Your task to perform on an android device: add a contact in the contacts app Image 0: 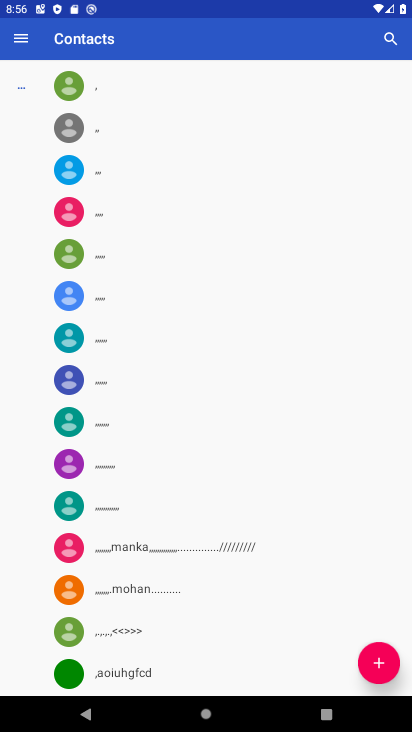
Step 0: drag from (158, 140) to (161, 421)
Your task to perform on an android device: add a contact in the contacts app Image 1: 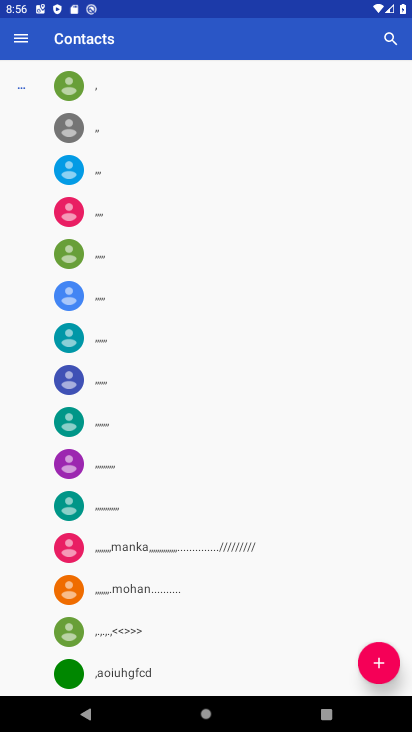
Step 1: click (22, 34)
Your task to perform on an android device: add a contact in the contacts app Image 2: 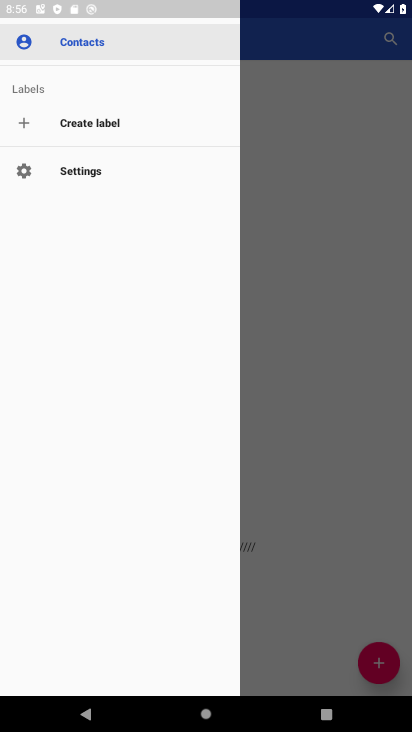
Step 2: click (338, 302)
Your task to perform on an android device: add a contact in the contacts app Image 3: 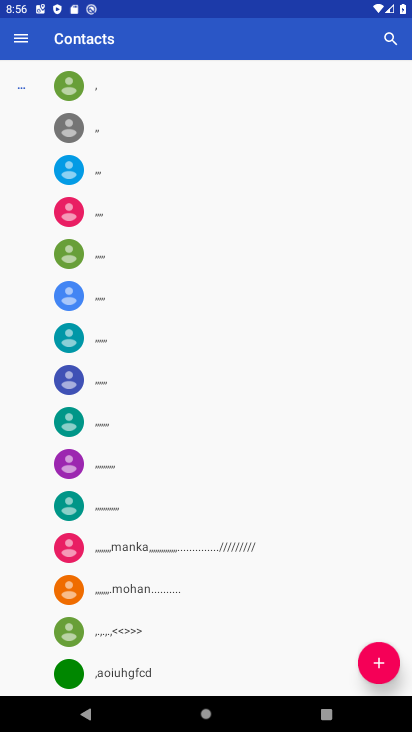
Step 3: press back button
Your task to perform on an android device: add a contact in the contacts app Image 4: 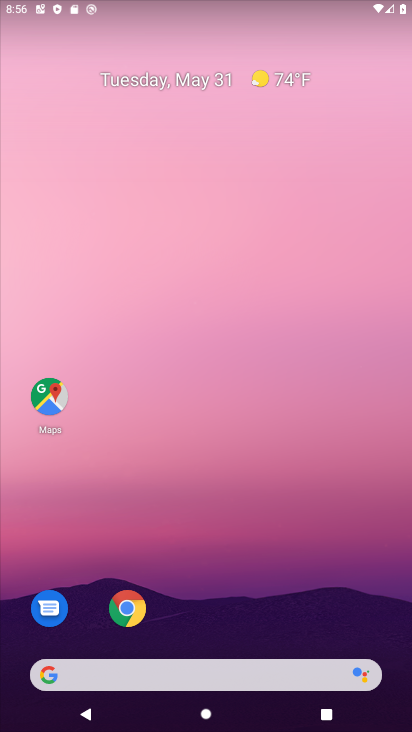
Step 4: drag from (244, 651) to (146, 202)
Your task to perform on an android device: add a contact in the contacts app Image 5: 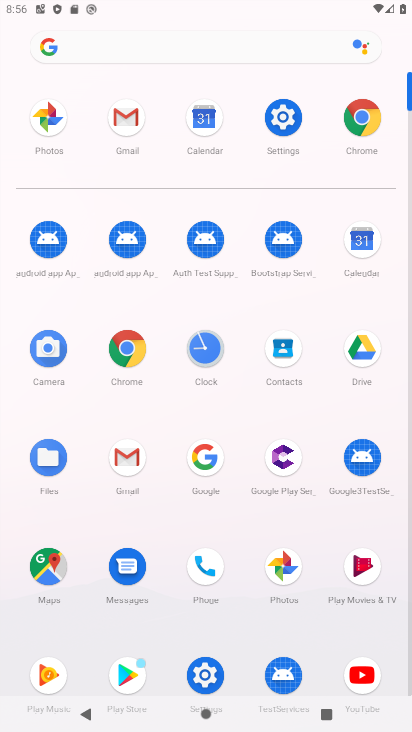
Step 5: click (201, 574)
Your task to perform on an android device: add a contact in the contacts app Image 6: 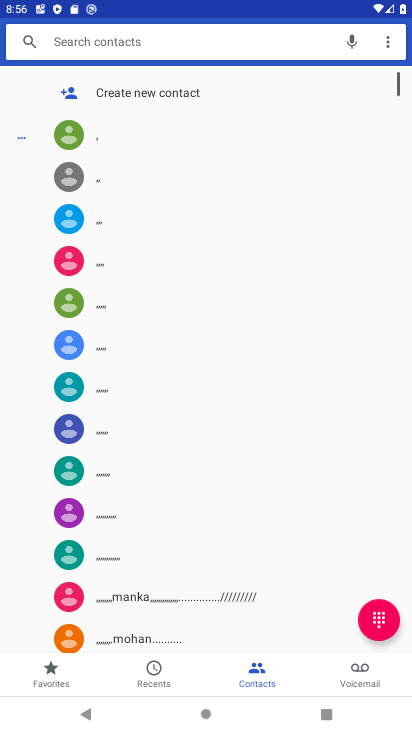
Step 6: click (100, 84)
Your task to perform on an android device: add a contact in the contacts app Image 7: 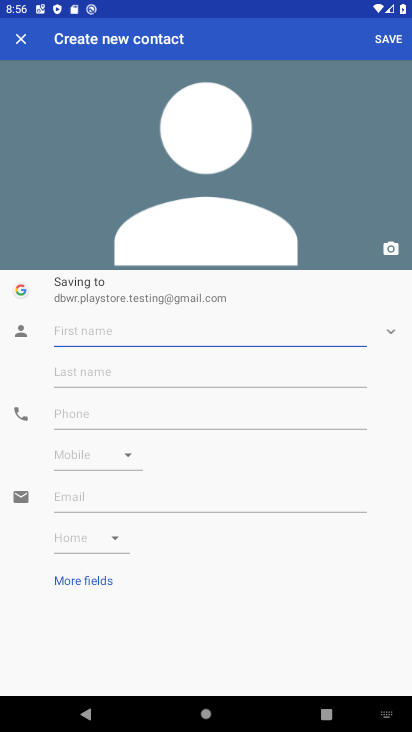
Step 7: type "juom"
Your task to perform on an android device: add a contact in the contacts app Image 8: 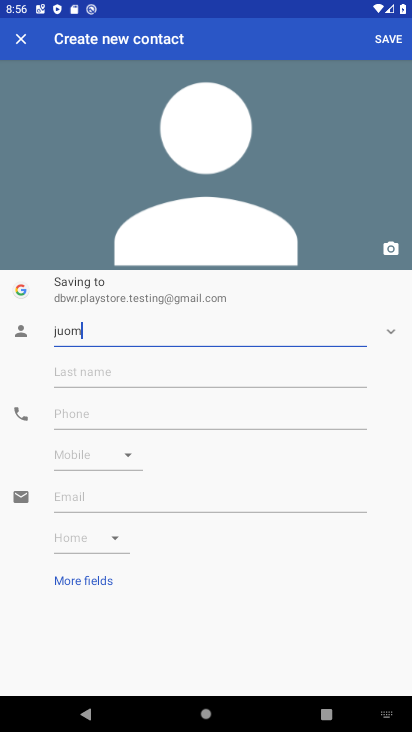
Step 8: click (163, 415)
Your task to perform on an android device: add a contact in the contacts app Image 9: 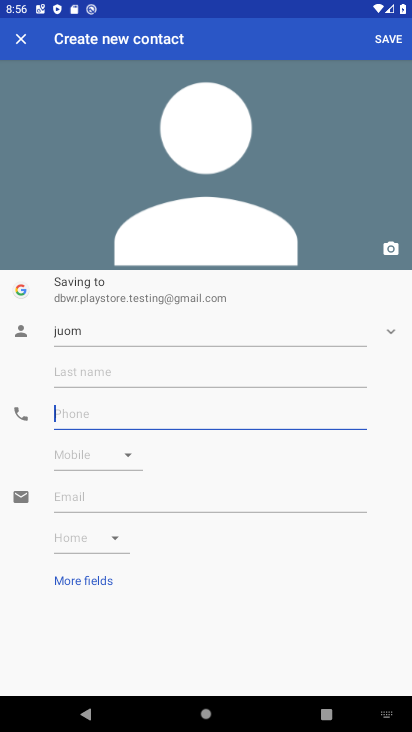
Step 9: type "849484"
Your task to perform on an android device: add a contact in the contacts app Image 10: 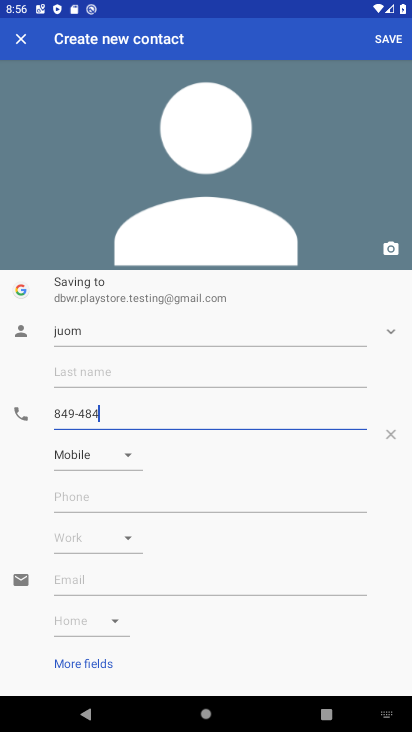
Step 10: click (395, 38)
Your task to perform on an android device: add a contact in the contacts app Image 11: 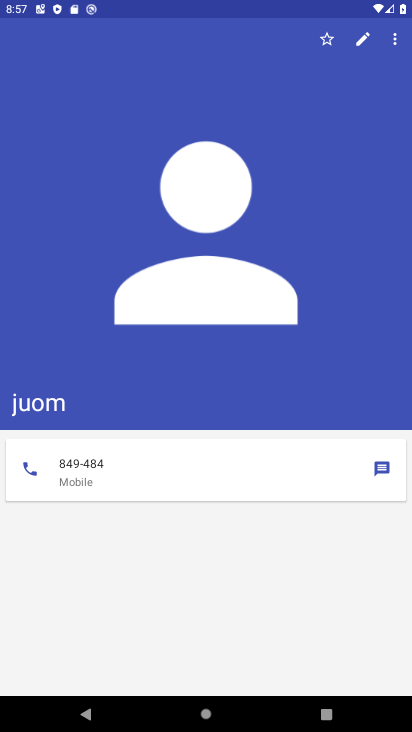
Step 11: task complete